Your task to perform on an android device: delete the emails in spam in the gmail app Image 0: 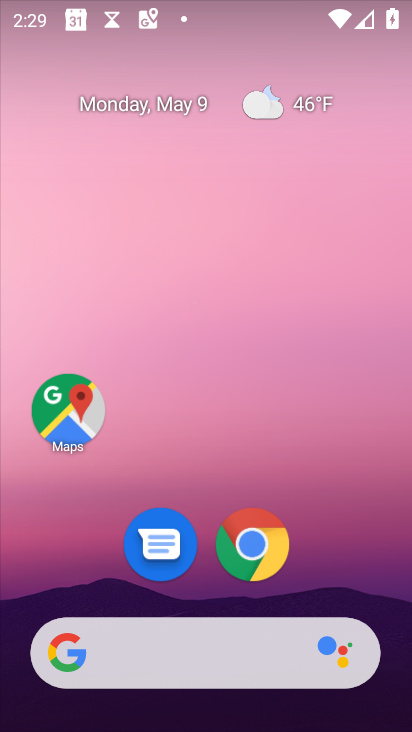
Step 0: click (142, 98)
Your task to perform on an android device: delete the emails in spam in the gmail app Image 1: 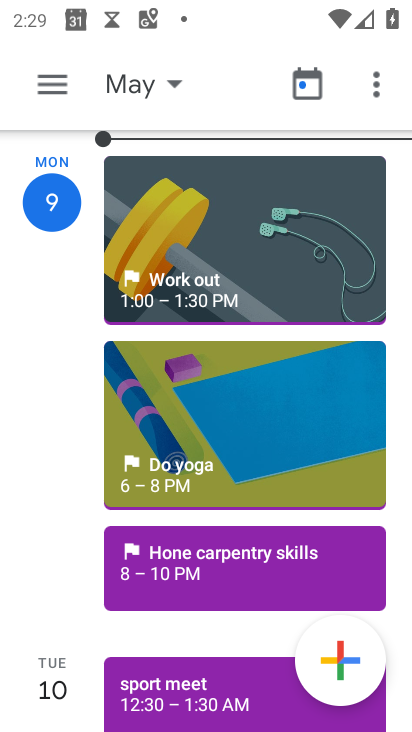
Step 1: press home button
Your task to perform on an android device: delete the emails in spam in the gmail app Image 2: 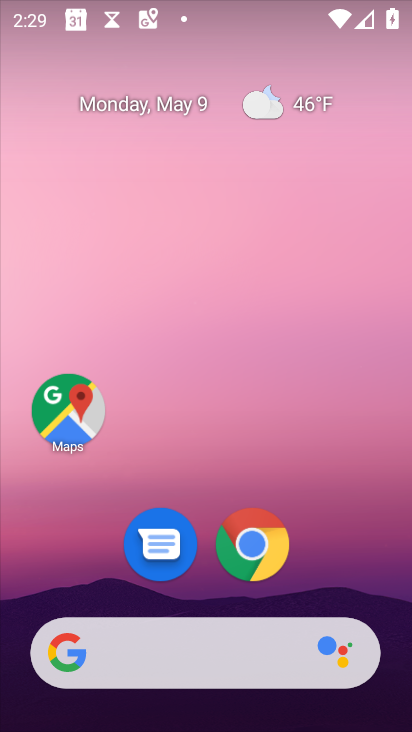
Step 2: drag from (342, 536) to (224, 115)
Your task to perform on an android device: delete the emails in spam in the gmail app Image 3: 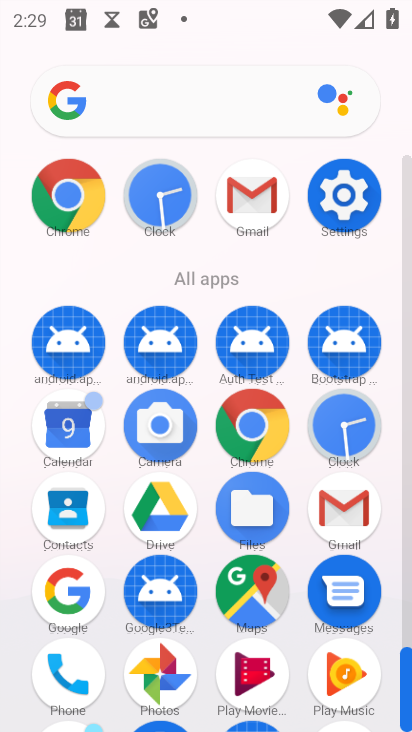
Step 3: click (345, 505)
Your task to perform on an android device: delete the emails in spam in the gmail app Image 4: 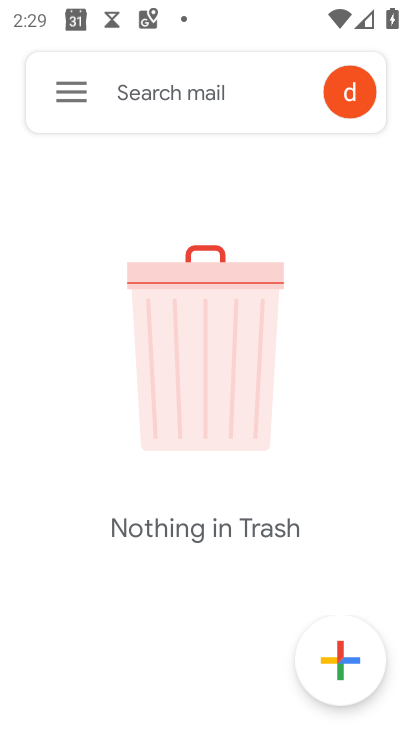
Step 4: click (74, 87)
Your task to perform on an android device: delete the emails in spam in the gmail app Image 5: 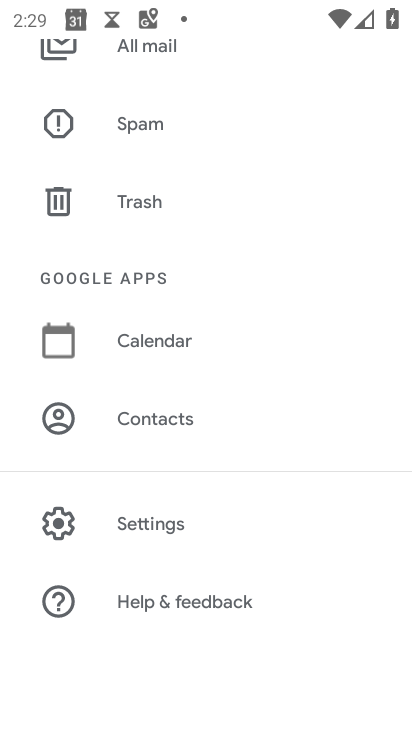
Step 5: click (142, 125)
Your task to perform on an android device: delete the emails in spam in the gmail app Image 6: 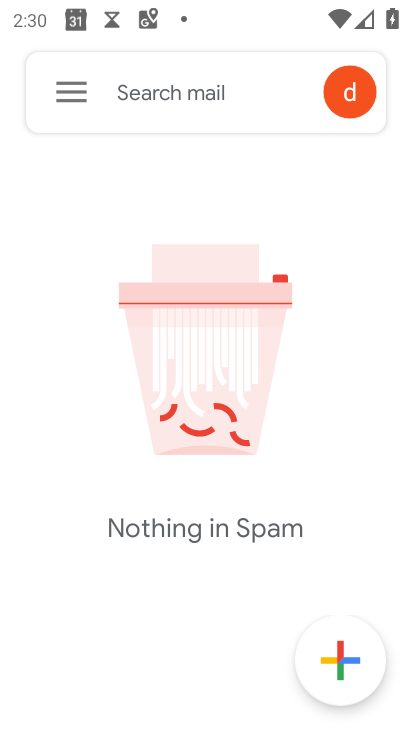
Step 6: task complete